Your task to perform on an android device: Open battery settings Image 0: 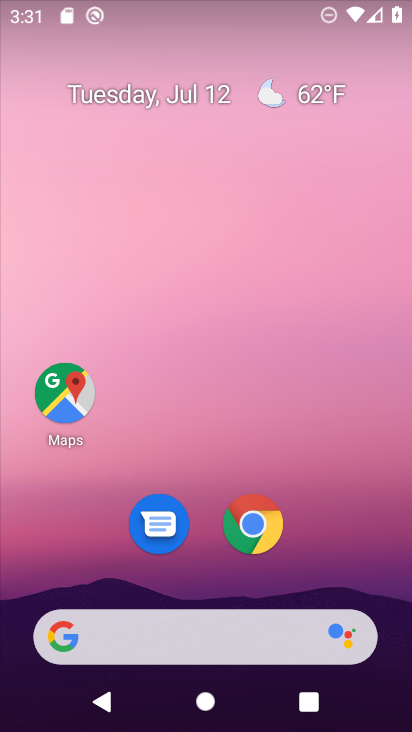
Step 0: drag from (322, 537) to (359, 29)
Your task to perform on an android device: Open battery settings Image 1: 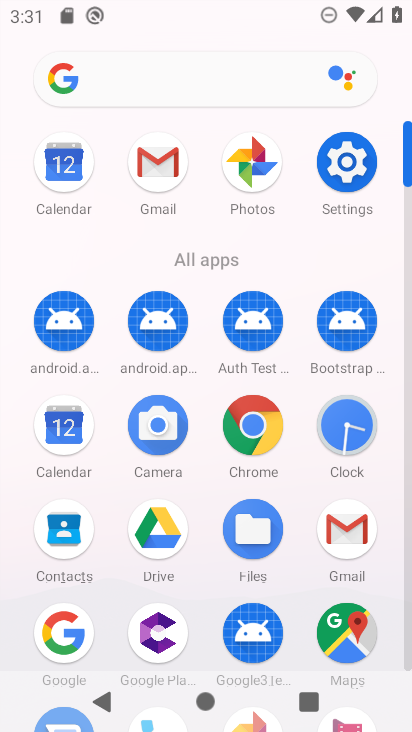
Step 1: click (352, 166)
Your task to perform on an android device: Open battery settings Image 2: 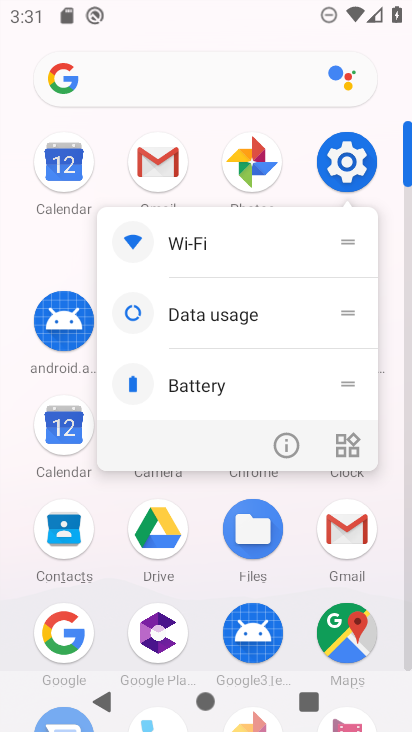
Step 2: click (352, 165)
Your task to perform on an android device: Open battery settings Image 3: 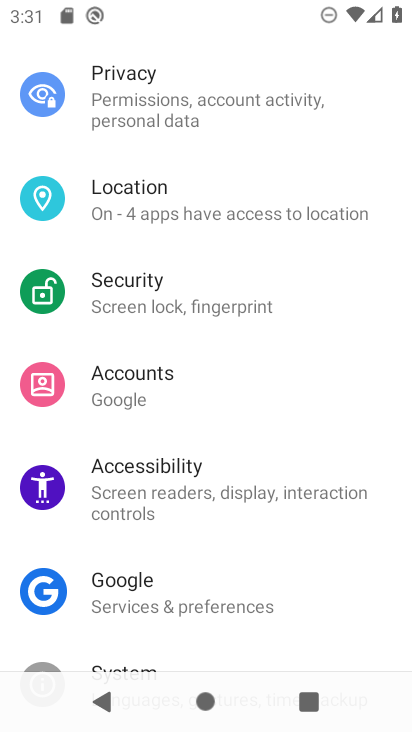
Step 3: drag from (267, 166) to (256, 564)
Your task to perform on an android device: Open battery settings Image 4: 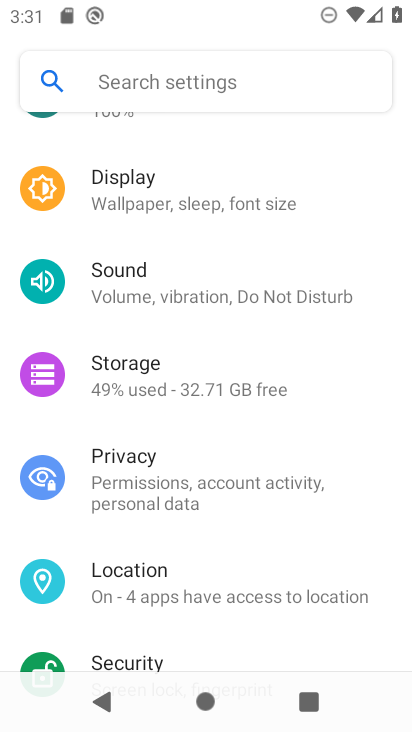
Step 4: drag from (216, 213) to (215, 517)
Your task to perform on an android device: Open battery settings Image 5: 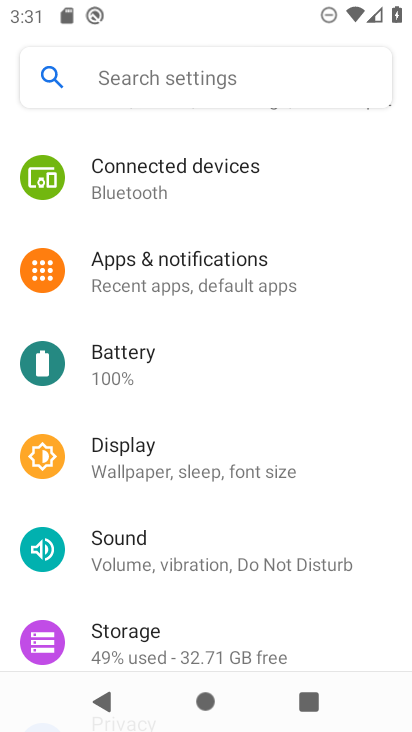
Step 5: click (133, 370)
Your task to perform on an android device: Open battery settings Image 6: 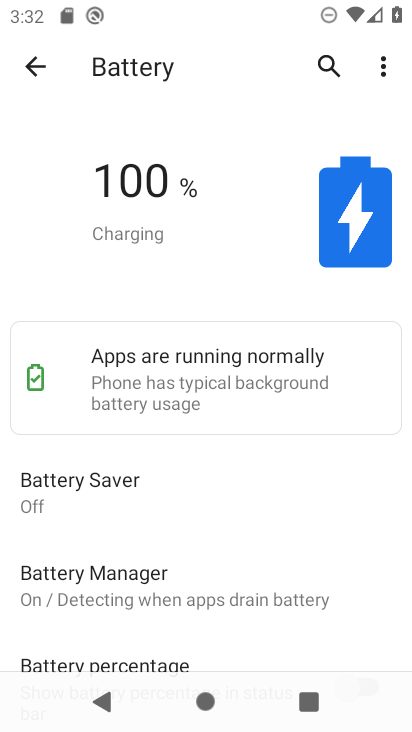
Step 6: task complete